Your task to perform on an android device: change keyboard looks Image 0: 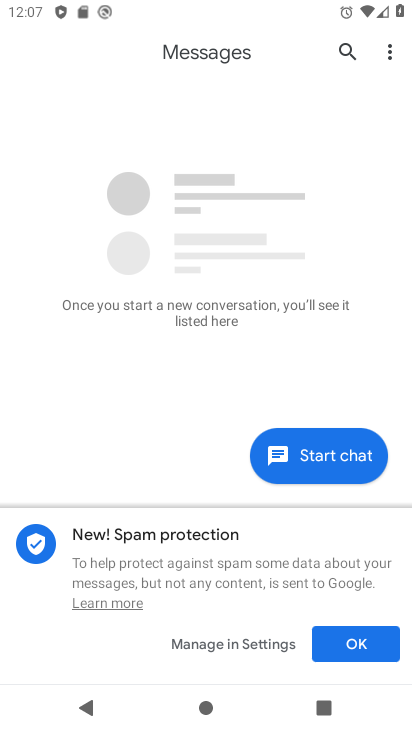
Step 0: press home button
Your task to perform on an android device: change keyboard looks Image 1: 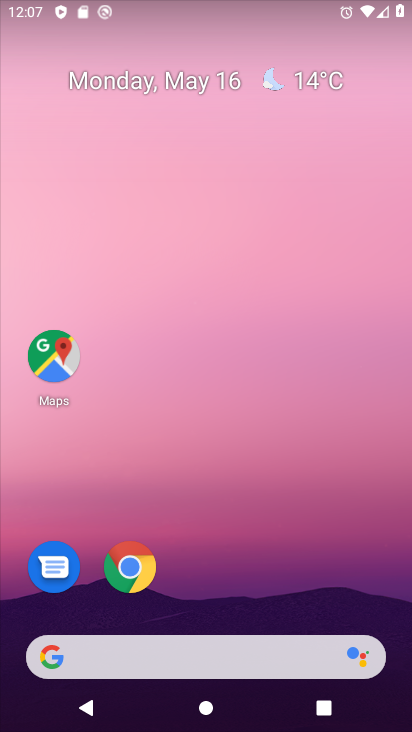
Step 1: drag from (246, 616) to (261, 63)
Your task to perform on an android device: change keyboard looks Image 2: 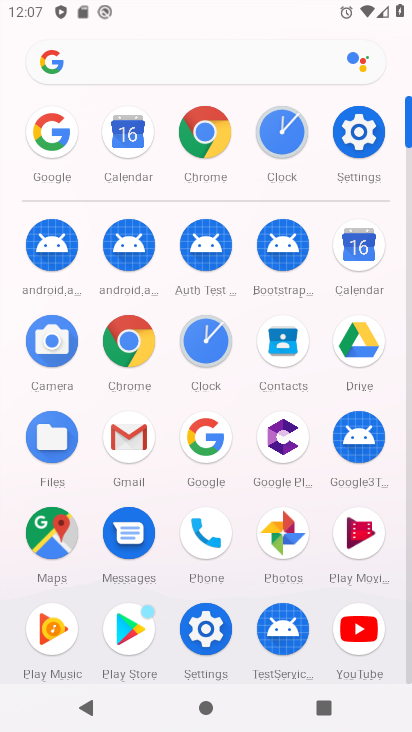
Step 2: click (358, 137)
Your task to perform on an android device: change keyboard looks Image 3: 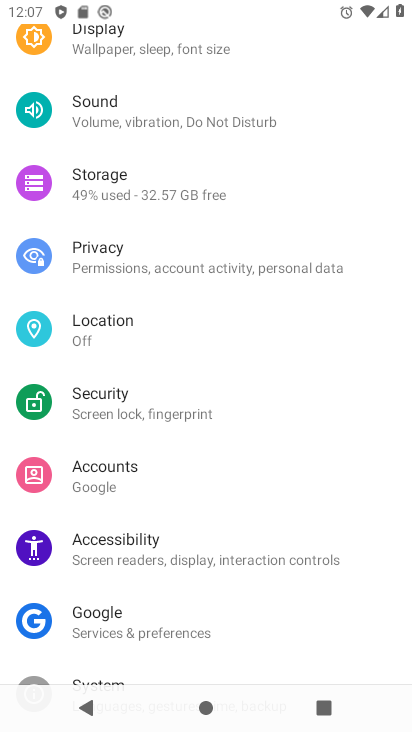
Step 3: drag from (202, 619) to (203, 381)
Your task to perform on an android device: change keyboard looks Image 4: 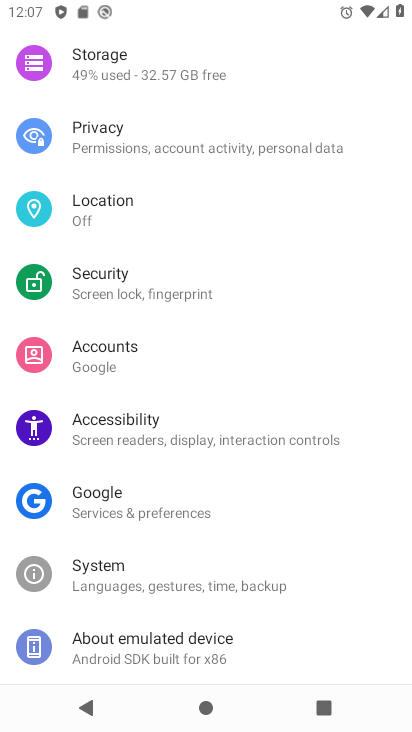
Step 4: click (178, 571)
Your task to perform on an android device: change keyboard looks Image 5: 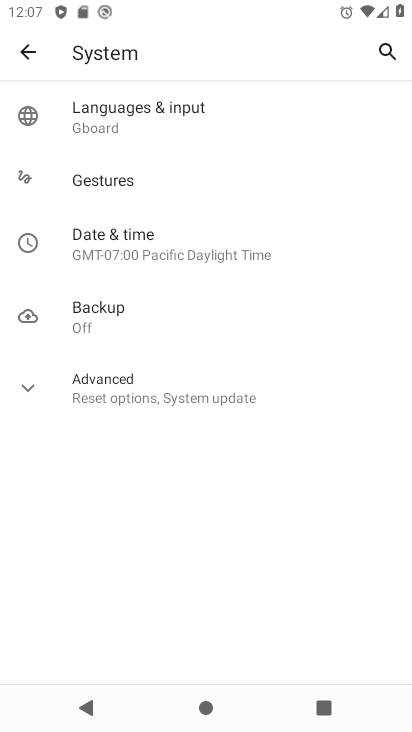
Step 5: click (227, 129)
Your task to perform on an android device: change keyboard looks Image 6: 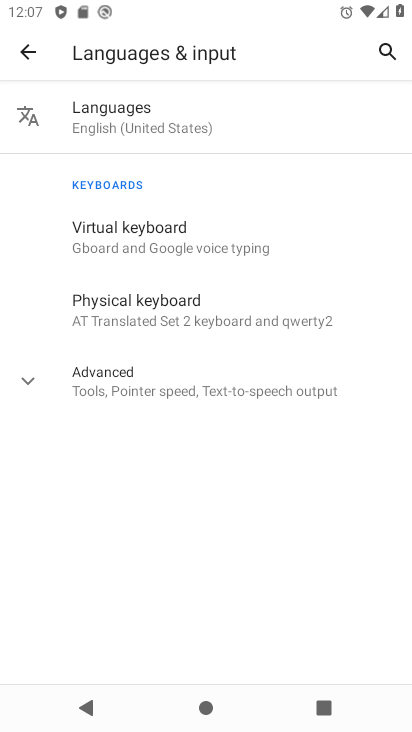
Step 6: click (97, 245)
Your task to perform on an android device: change keyboard looks Image 7: 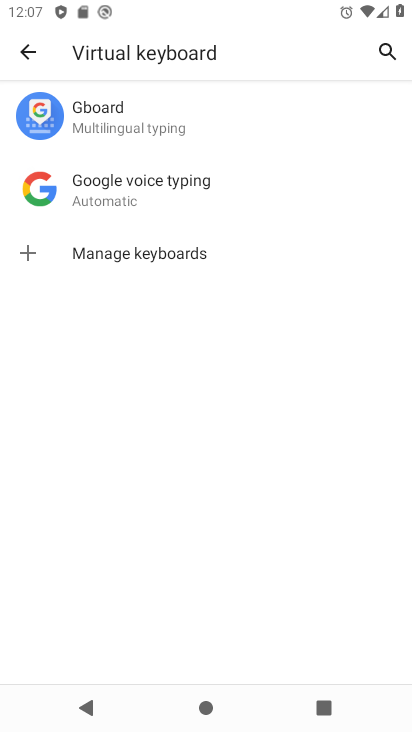
Step 7: click (126, 123)
Your task to perform on an android device: change keyboard looks Image 8: 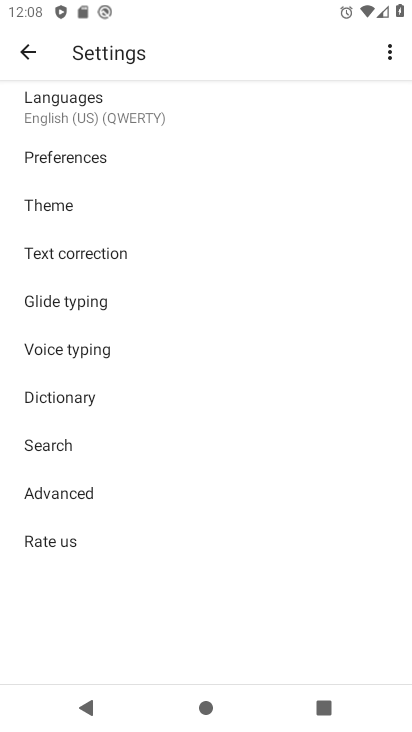
Step 8: click (82, 210)
Your task to perform on an android device: change keyboard looks Image 9: 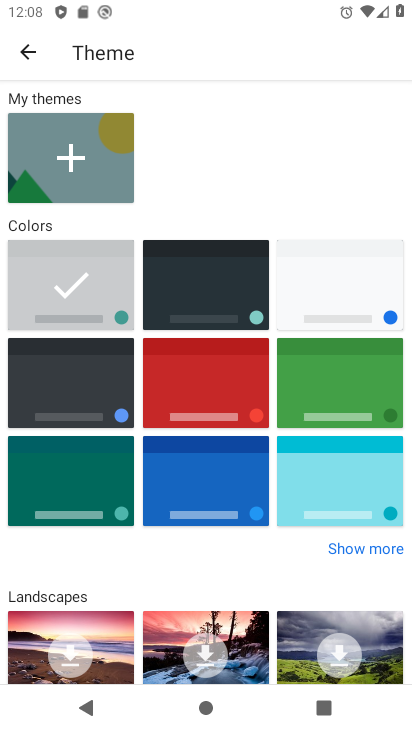
Step 9: click (194, 494)
Your task to perform on an android device: change keyboard looks Image 10: 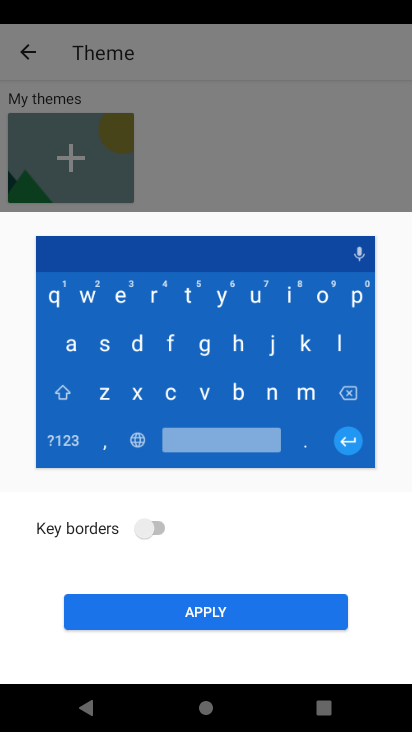
Step 10: click (166, 617)
Your task to perform on an android device: change keyboard looks Image 11: 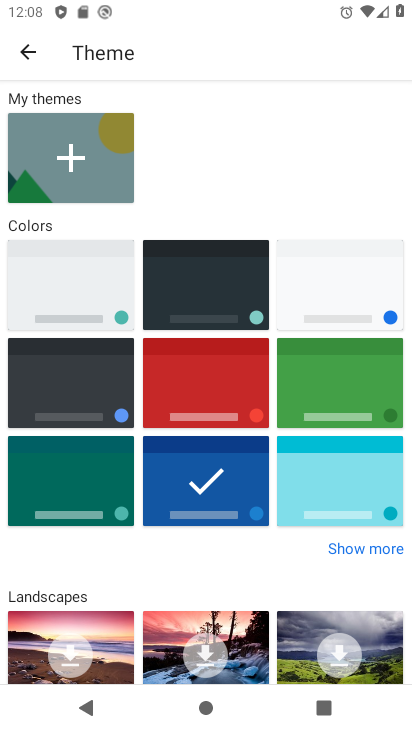
Step 11: task complete